Your task to perform on an android device: What's the weather today? Image 0: 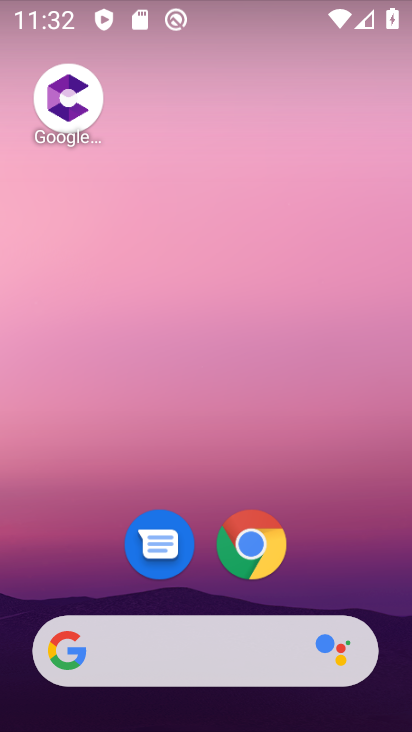
Step 0: click (184, 652)
Your task to perform on an android device: What's the weather today? Image 1: 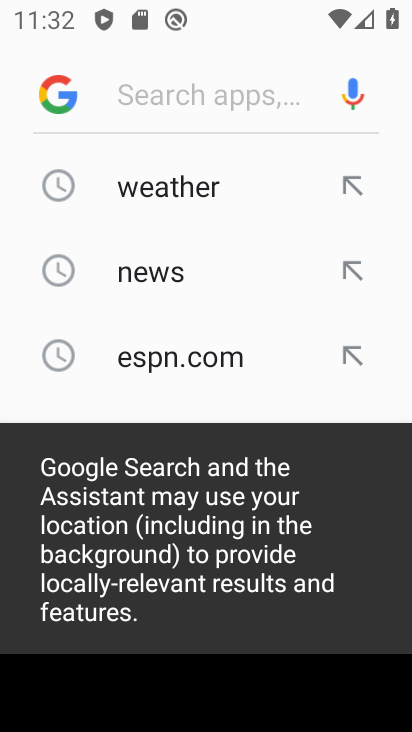
Step 1: click (172, 200)
Your task to perform on an android device: What's the weather today? Image 2: 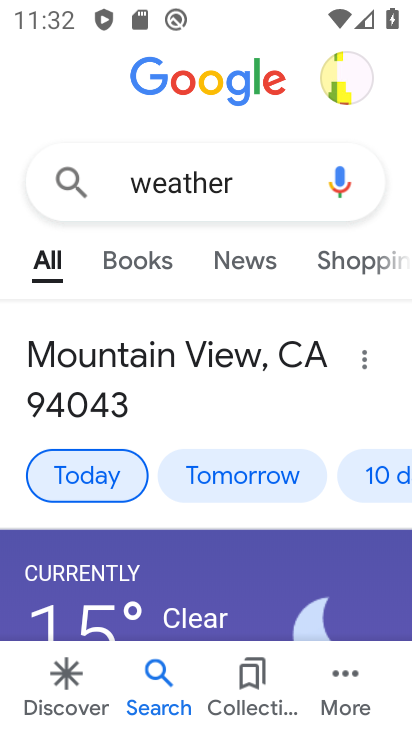
Step 2: task complete